Your task to perform on an android device: install app "LiveIn - Share Your Moment" Image 0: 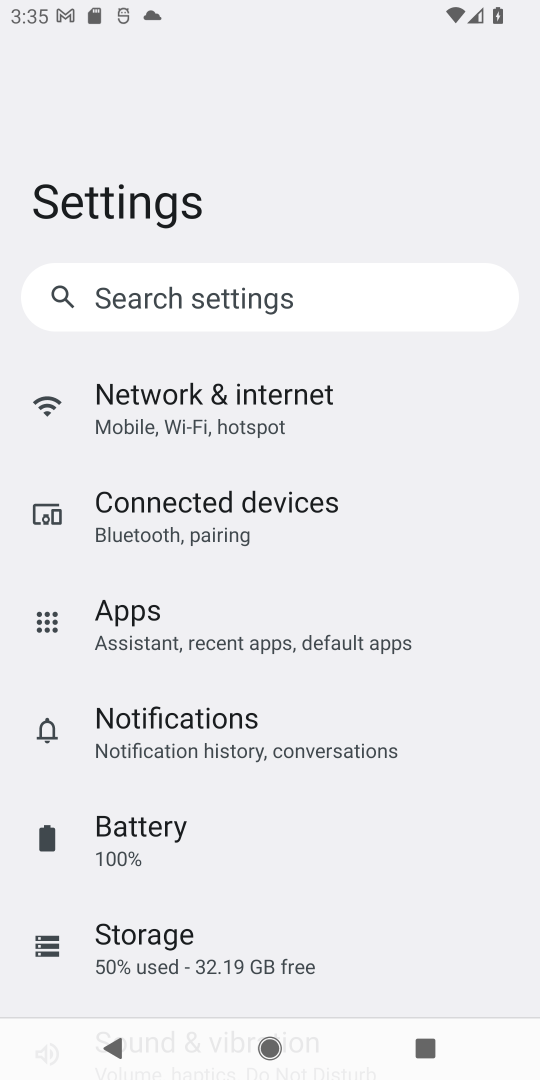
Step 0: press back button
Your task to perform on an android device: install app "LiveIn - Share Your Moment" Image 1: 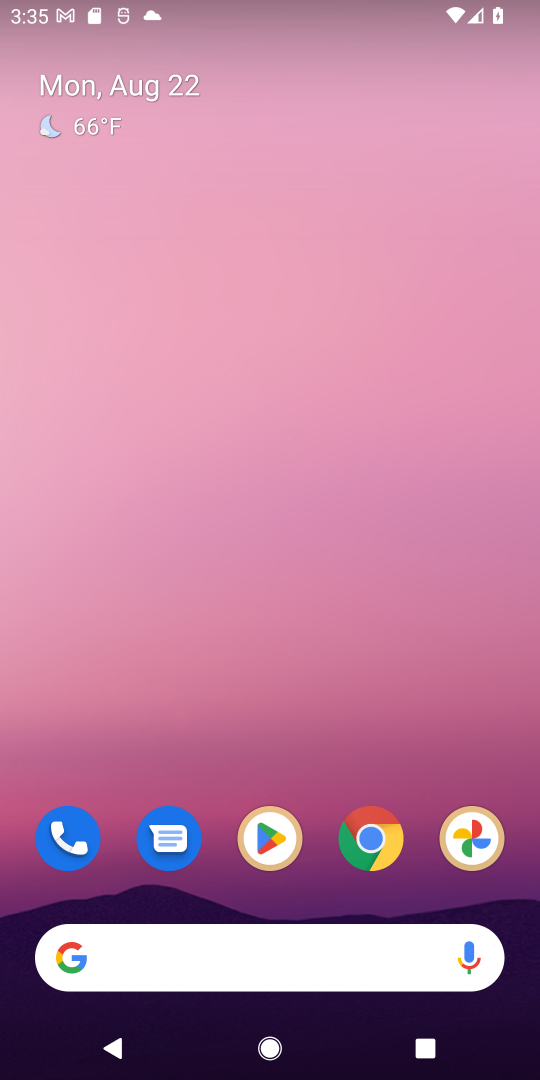
Step 1: click (270, 820)
Your task to perform on an android device: install app "LiveIn - Share Your Moment" Image 2: 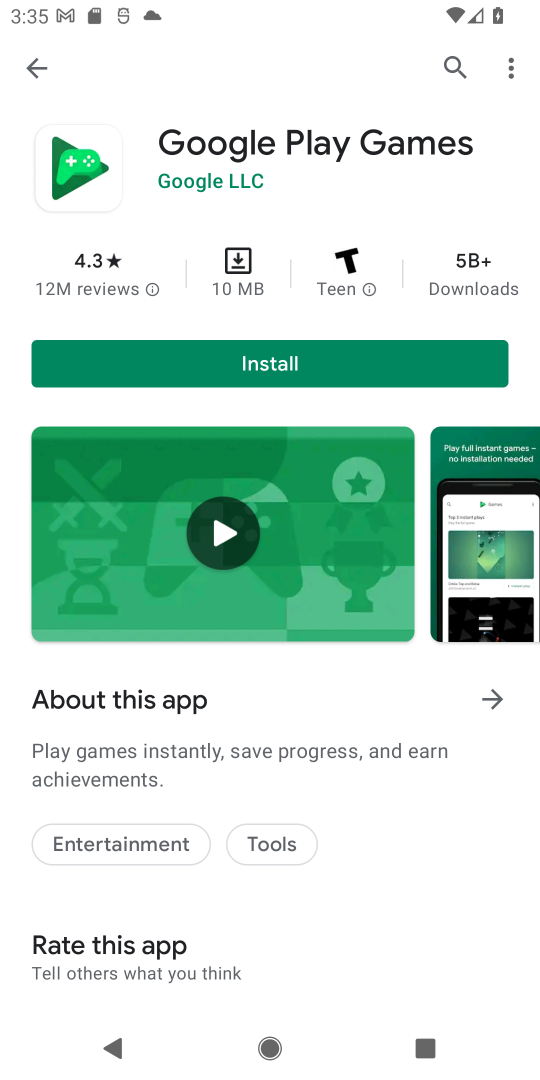
Step 2: click (468, 69)
Your task to perform on an android device: install app "LiveIn - Share Your Moment" Image 3: 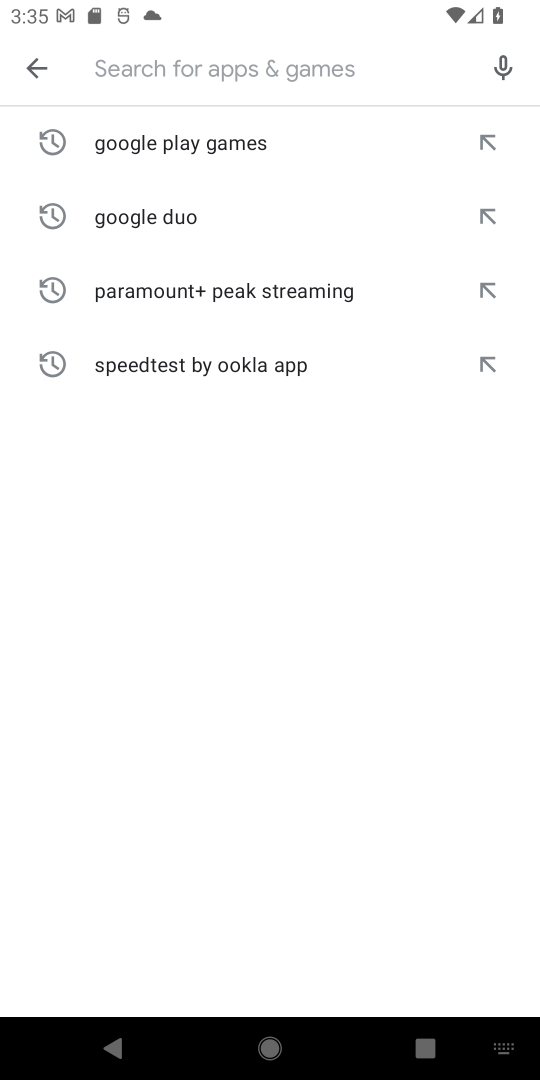
Step 3: click (158, 77)
Your task to perform on an android device: install app "LiveIn - Share Your Moment" Image 4: 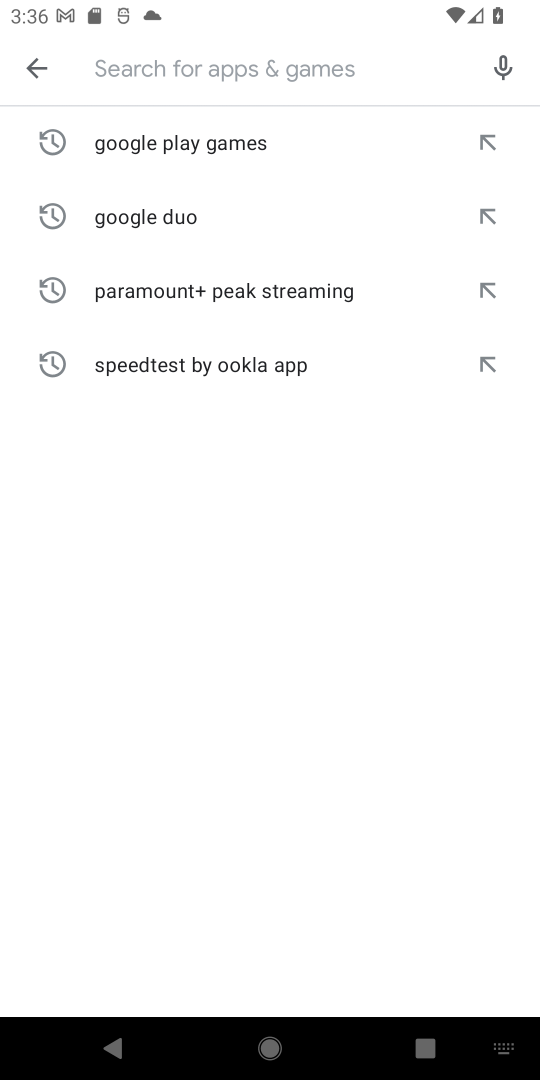
Step 4: type "LiveIn"
Your task to perform on an android device: install app "LiveIn - Share Your Moment" Image 5: 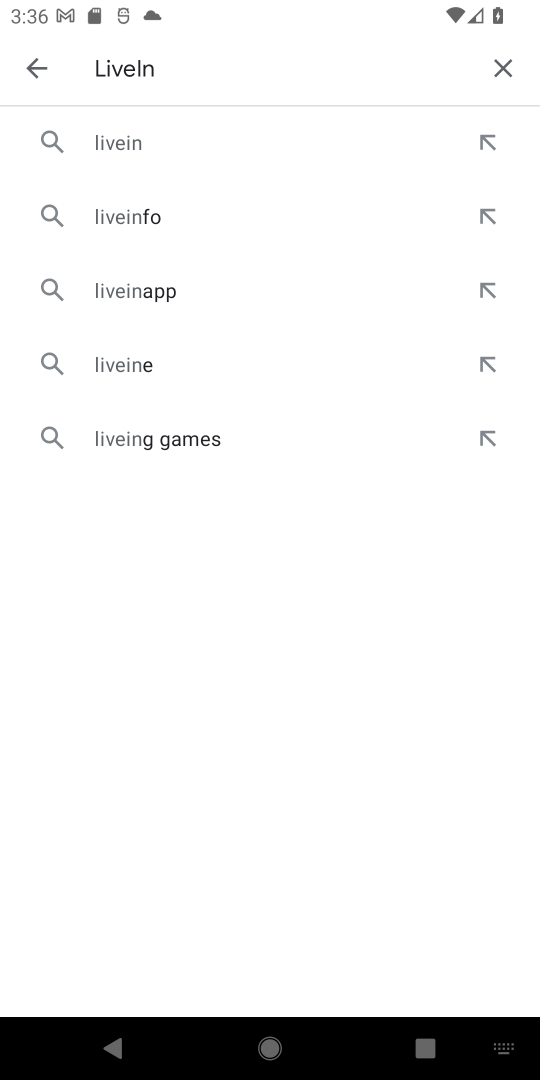
Step 5: click (143, 138)
Your task to perform on an android device: install app "LiveIn - Share Your Moment" Image 6: 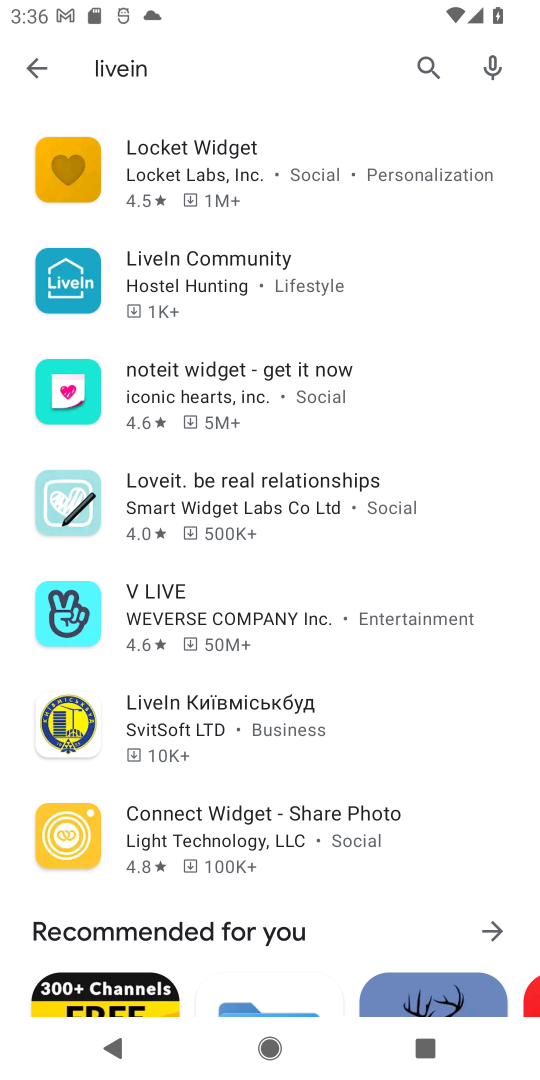
Step 6: click (244, 246)
Your task to perform on an android device: install app "LiveIn - Share Your Moment" Image 7: 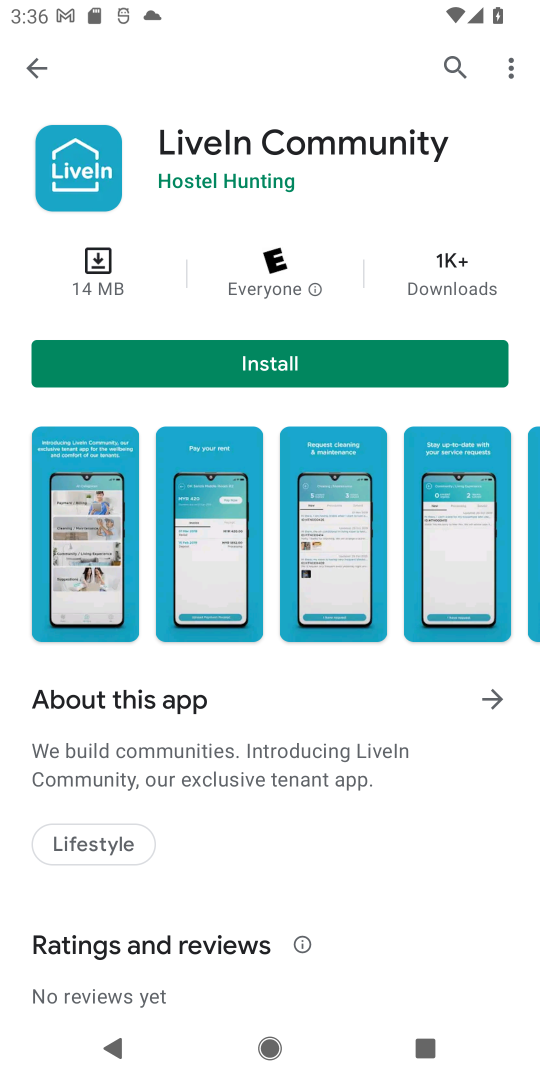
Step 7: task complete